Your task to perform on an android device: change keyboard looks Image 0: 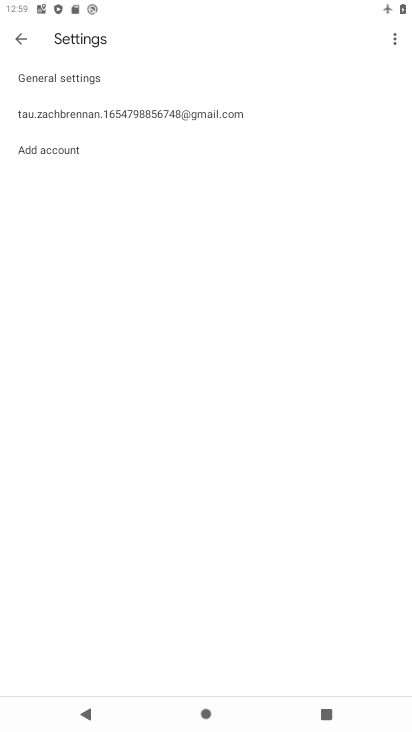
Step 0: press home button
Your task to perform on an android device: change keyboard looks Image 1: 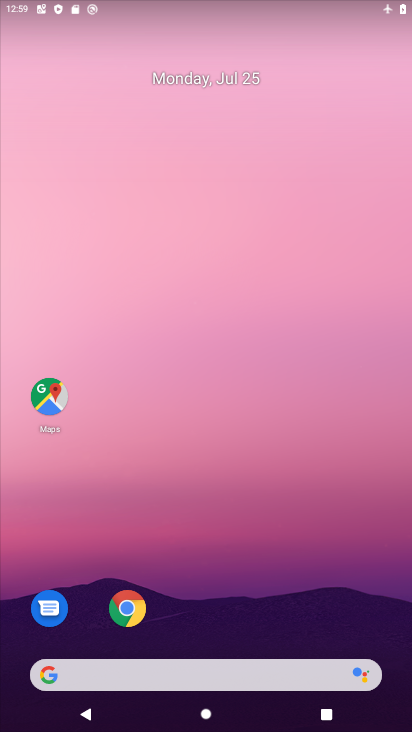
Step 1: drag from (212, 644) to (213, 1)
Your task to perform on an android device: change keyboard looks Image 2: 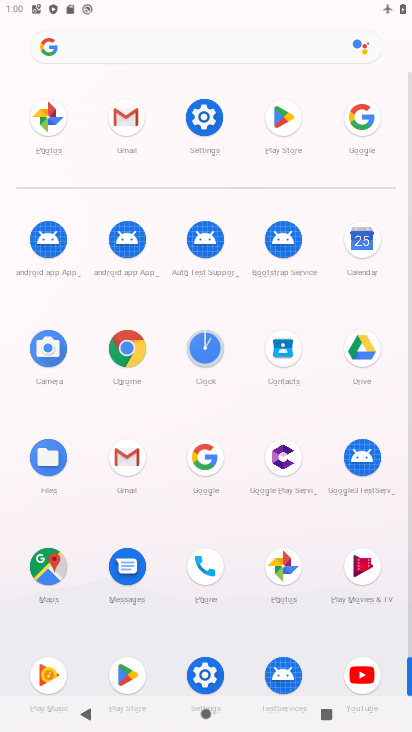
Step 2: click (194, 125)
Your task to perform on an android device: change keyboard looks Image 3: 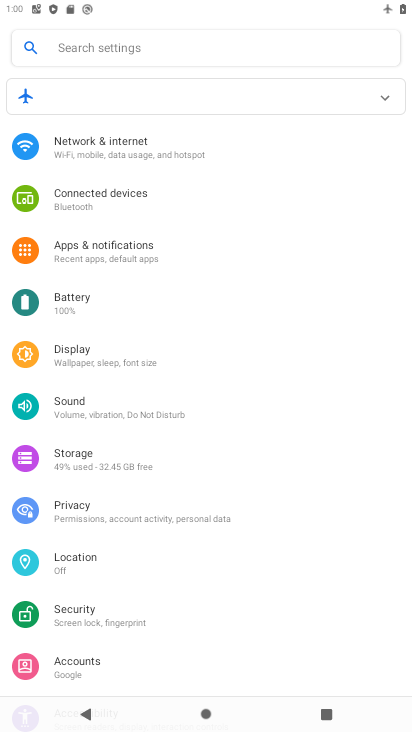
Step 3: drag from (262, 591) to (229, 44)
Your task to perform on an android device: change keyboard looks Image 4: 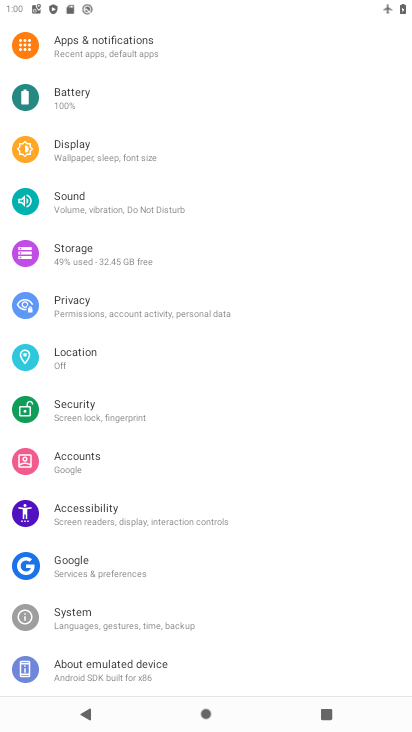
Step 4: click (77, 629)
Your task to perform on an android device: change keyboard looks Image 5: 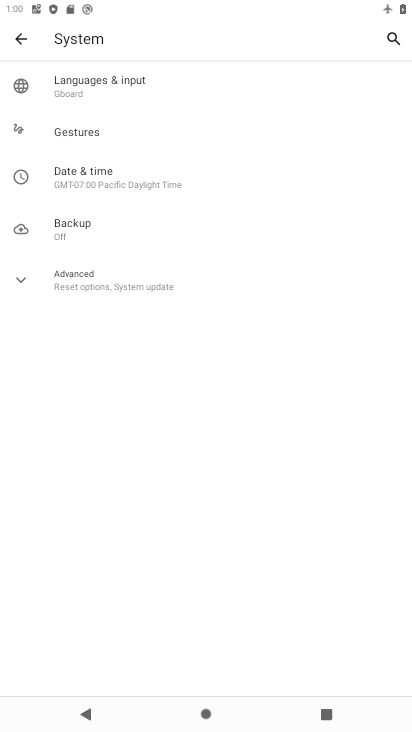
Step 5: click (72, 86)
Your task to perform on an android device: change keyboard looks Image 6: 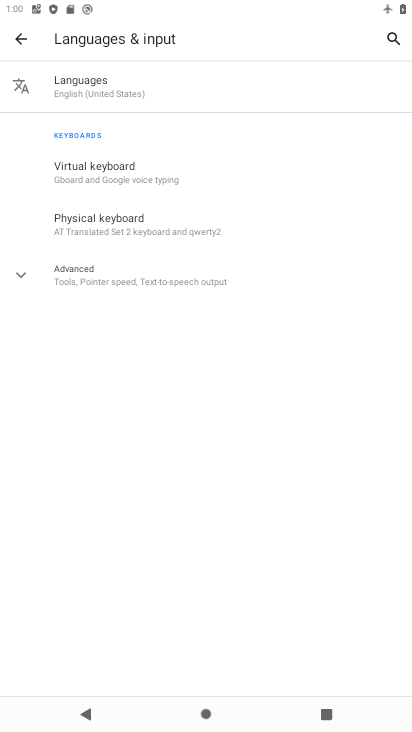
Step 6: click (74, 167)
Your task to perform on an android device: change keyboard looks Image 7: 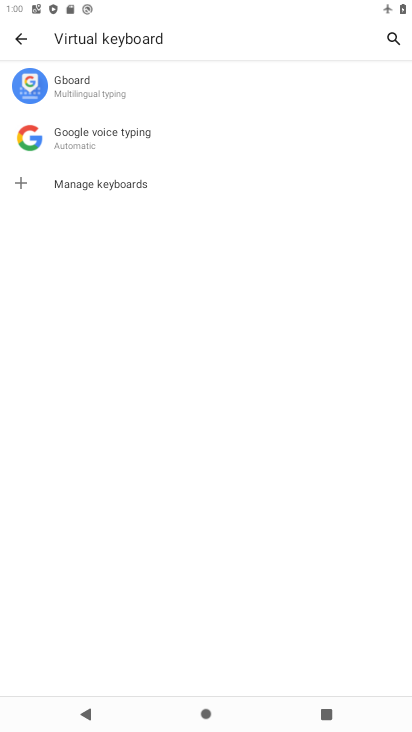
Step 7: click (61, 88)
Your task to perform on an android device: change keyboard looks Image 8: 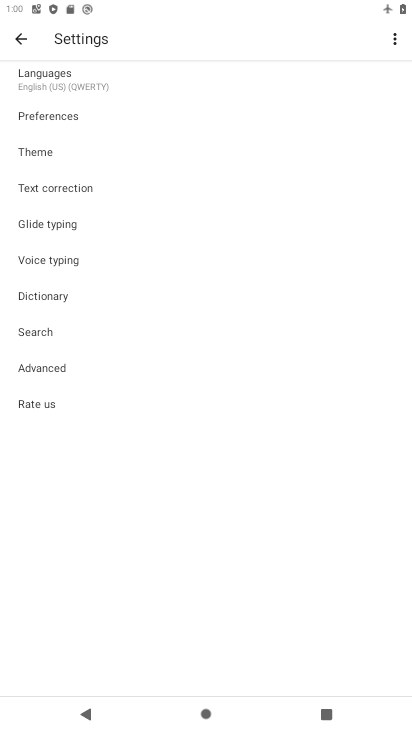
Step 8: click (39, 159)
Your task to perform on an android device: change keyboard looks Image 9: 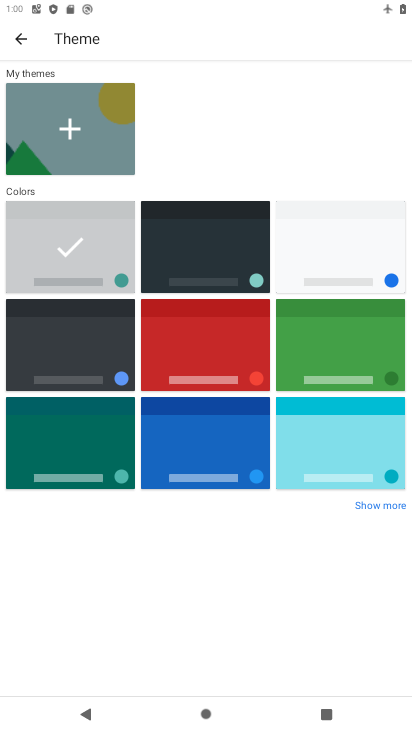
Step 9: click (66, 329)
Your task to perform on an android device: change keyboard looks Image 10: 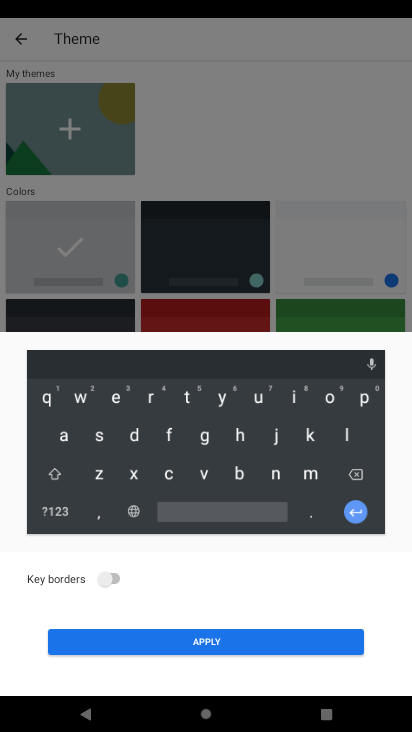
Step 10: click (104, 578)
Your task to perform on an android device: change keyboard looks Image 11: 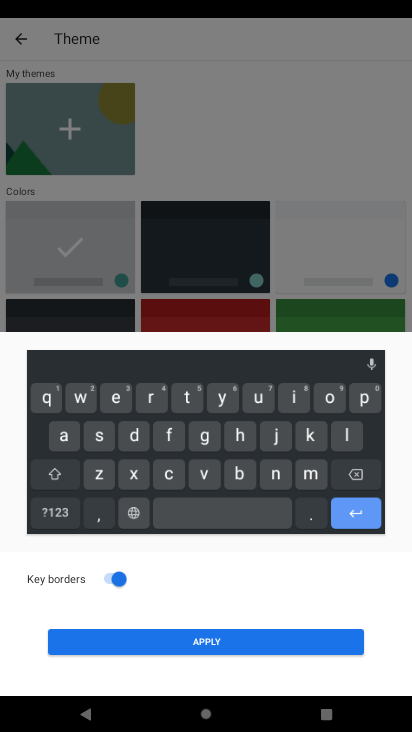
Step 11: click (192, 644)
Your task to perform on an android device: change keyboard looks Image 12: 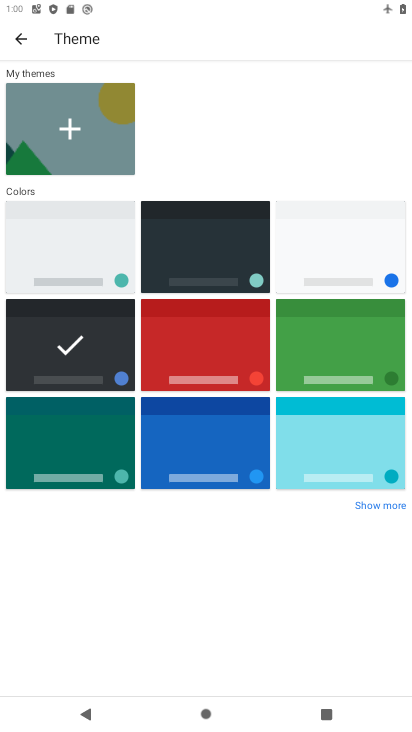
Step 12: task complete